Your task to perform on an android device: snooze an email in the gmail app Image 0: 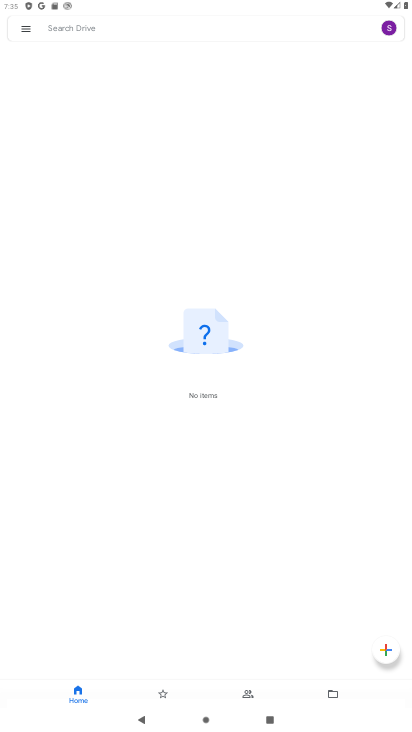
Step 0: press home button
Your task to perform on an android device: snooze an email in the gmail app Image 1: 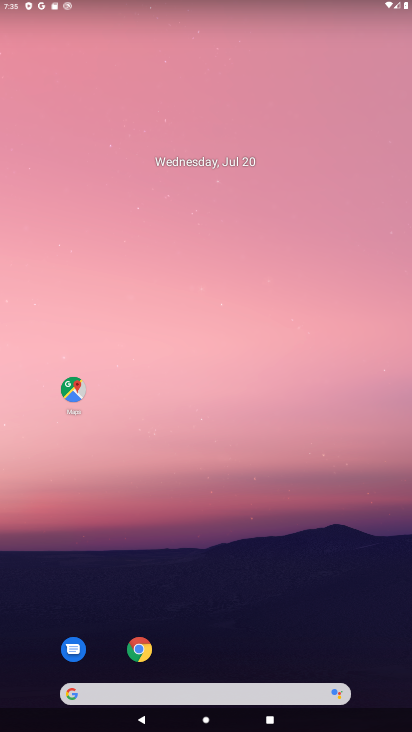
Step 1: drag from (222, 651) to (301, 563)
Your task to perform on an android device: snooze an email in the gmail app Image 2: 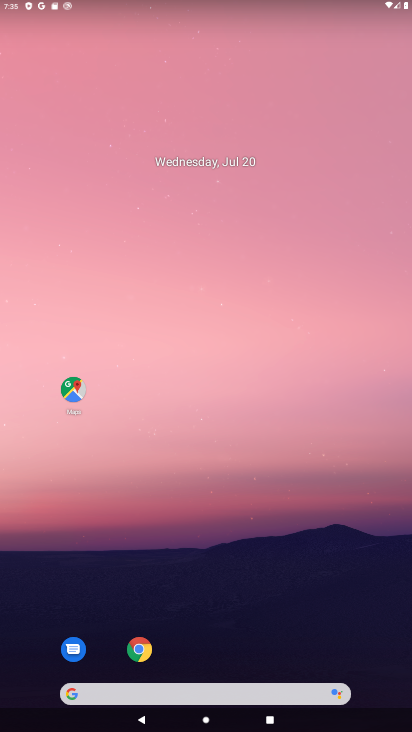
Step 2: drag from (253, 652) to (86, 52)
Your task to perform on an android device: snooze an email in the gmail app Image 3: 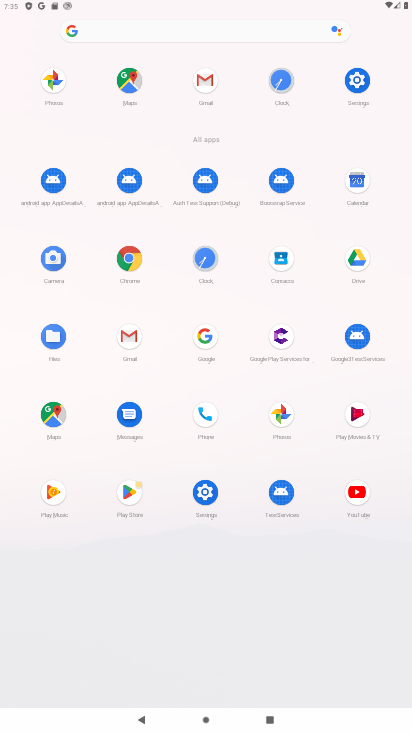
Step 3: click (125, 341)
Your task to perform on an android device: snooze an email in the gmail app Image 4: 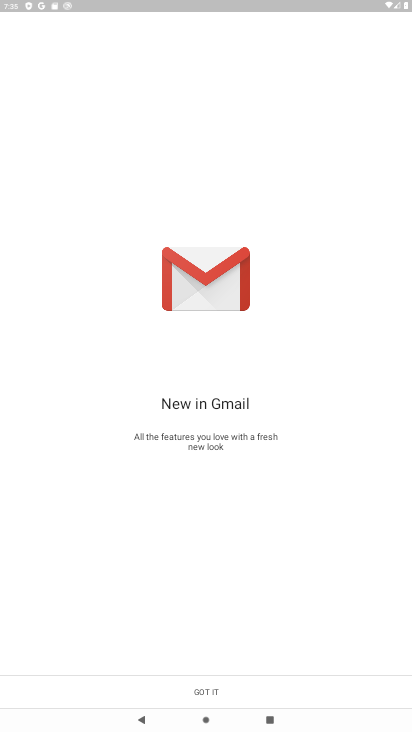
Step 4: click (229, 685)
Your task to perform on an android device: snooze an email in the gmail app Image 5: 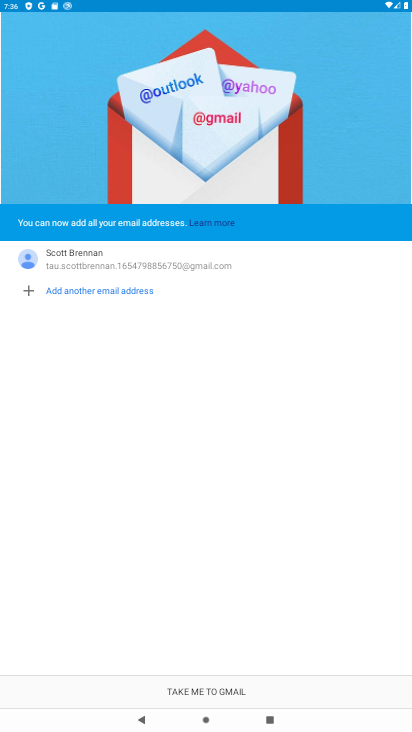
Step 5: click (229, 685)
Your task to perform on an android device: snooze an email in the gmail app Image 6: 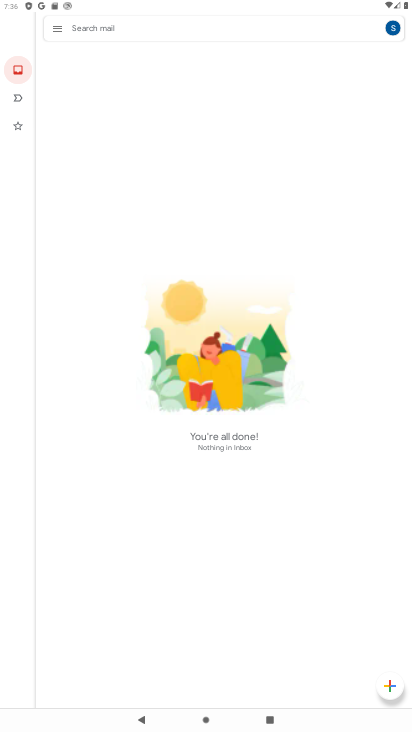
Step 6: task complete